Your task to perform on an android device: Open Youtube and go to the subscriptions tab Image 0: 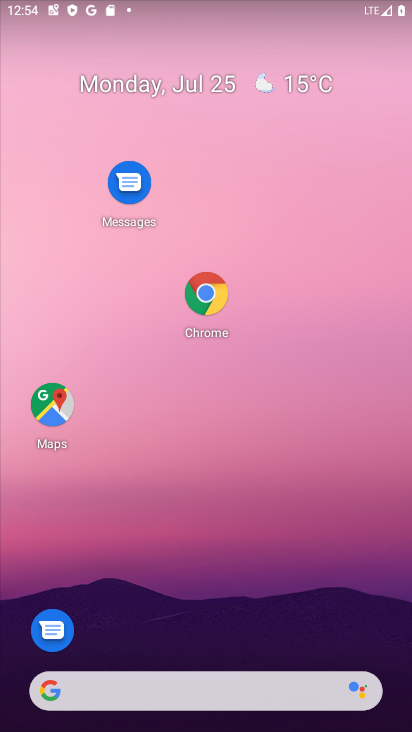
Step 0: drag from (352, 603) to (403, 137)
Your task to perform on an android device: Open Youtube and go to the subscriptions tab Image 1: 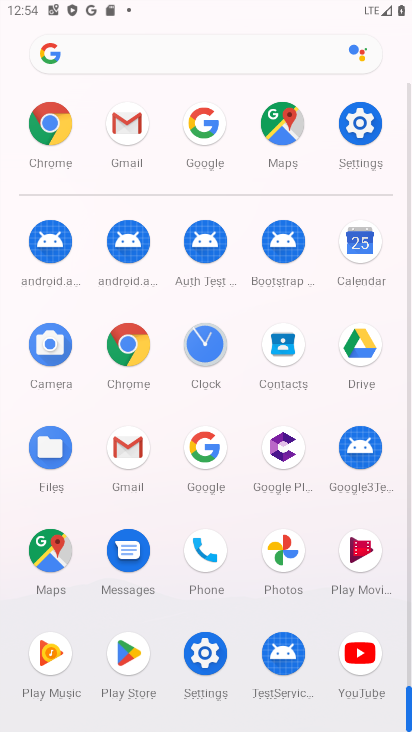
Step 1: click (359, 651)
Your task to perform on an android device: Open Youtube and go to the subscriptions tab Image 2: 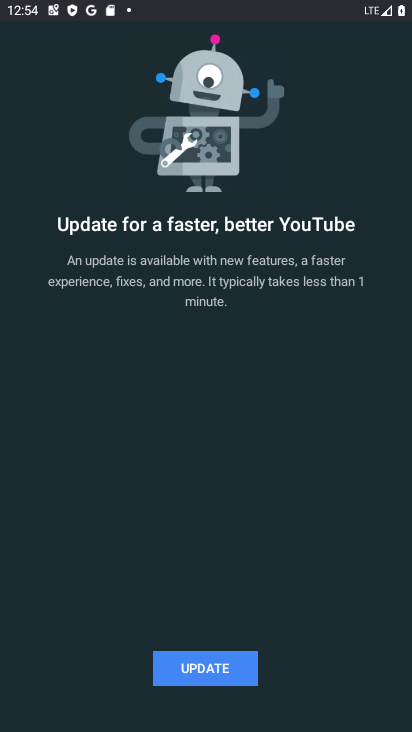
Step 2: click (231, 670)
Your task to perform on an android device: Open Youtube and go to the subscriptions tab Image 3: 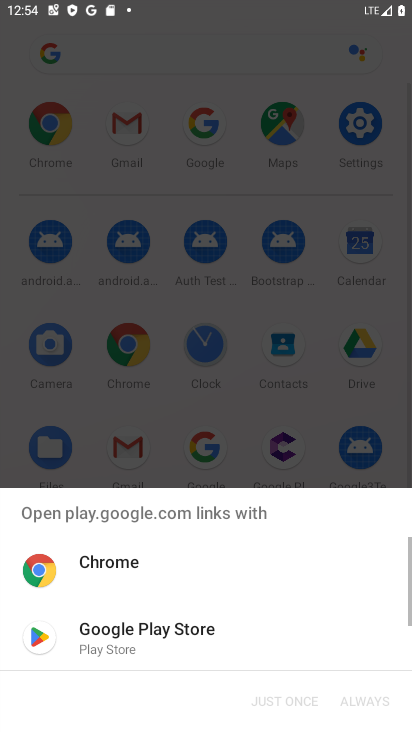
Step 3: click (149, 636)
Your task to perform on an android device: Open Youtube and go to the subscriptions tab Image 4: 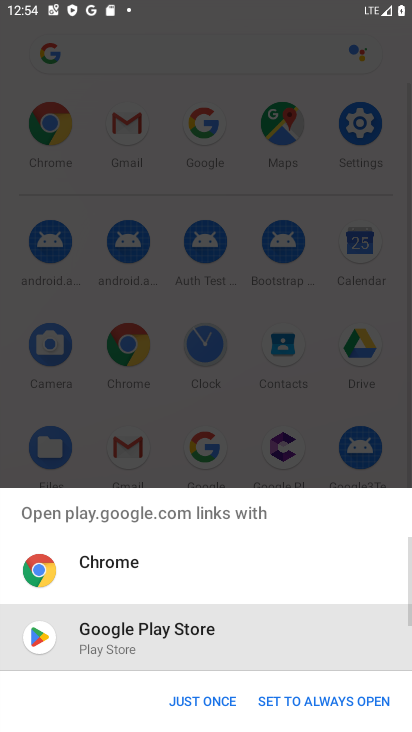
Step 4: click (218, 696)
Your task to perform on an android device: Open Youtube and go to the subscriptions tab Image 5: 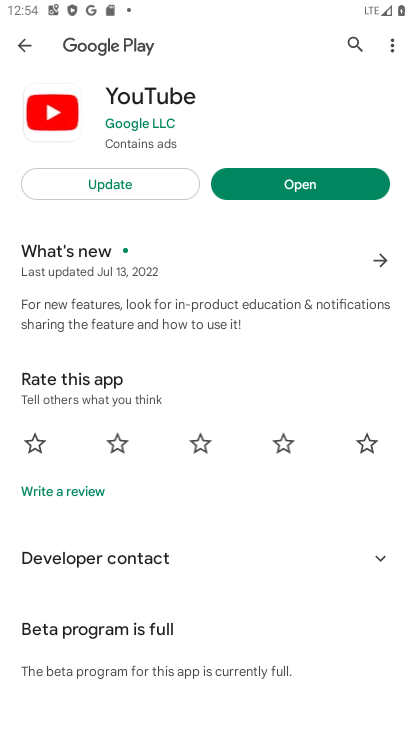
Step 5: click (89, 184)
Your task to perform on an android device: Open Youtube and go to the subscriptions tab Image 6: 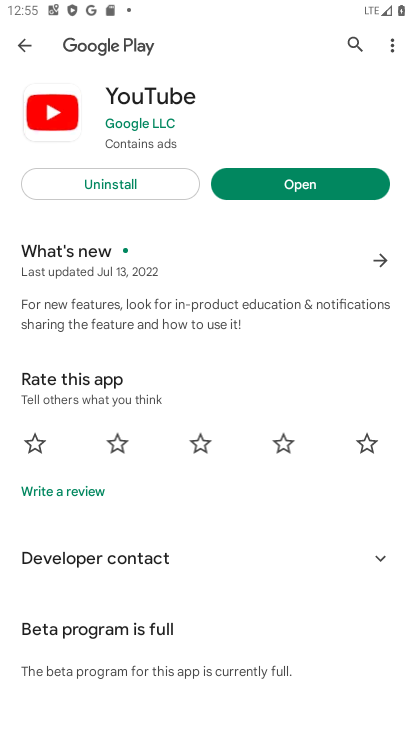
Step 6: click (339, 182)
Your task to perform on an android device: Open Youtube and go to the subscriptions tab Image 7: 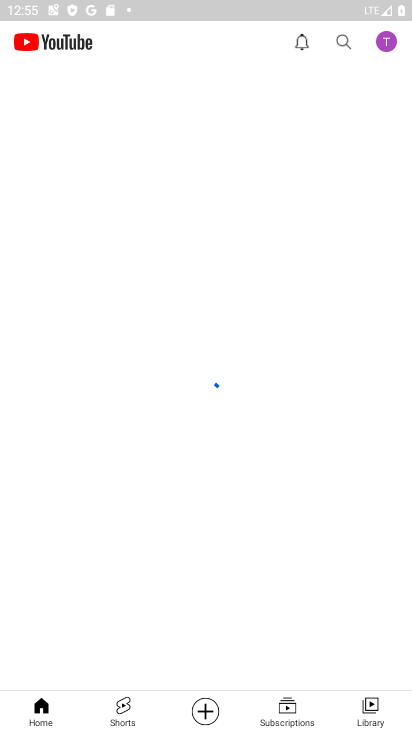
Step 7: click (282, 705)
Your task to perform on an android device: Open Youtube and go to the subscriptions tab Image 8: 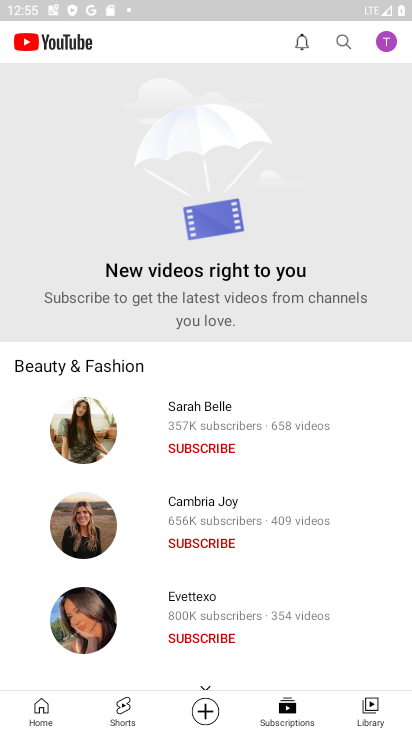
Step 8: task complete